Your task to perform on an android device: What's the price of the new iPhone on eBay? Image 0: 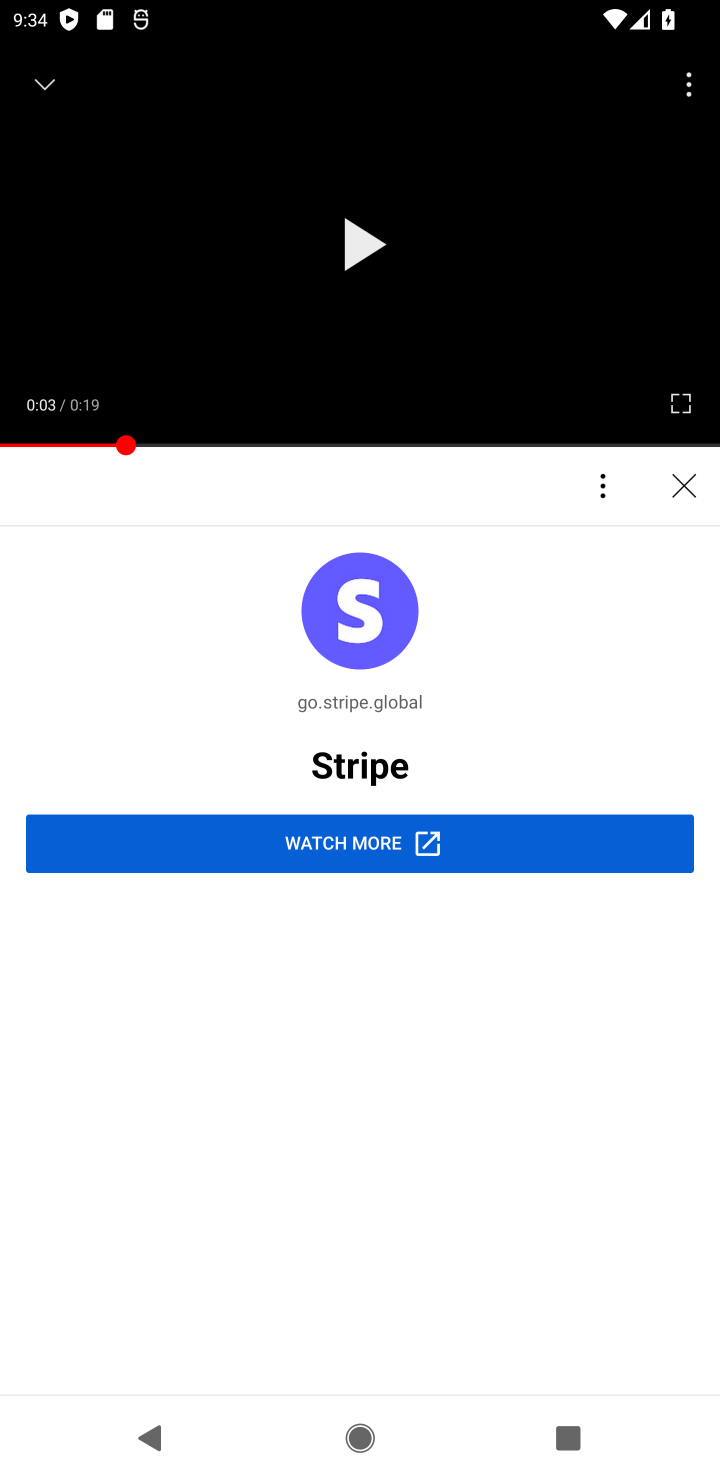
Step 0: press home button
Your task to perform on an android device: What's the price of the new iPhone on eBay? Image 1: 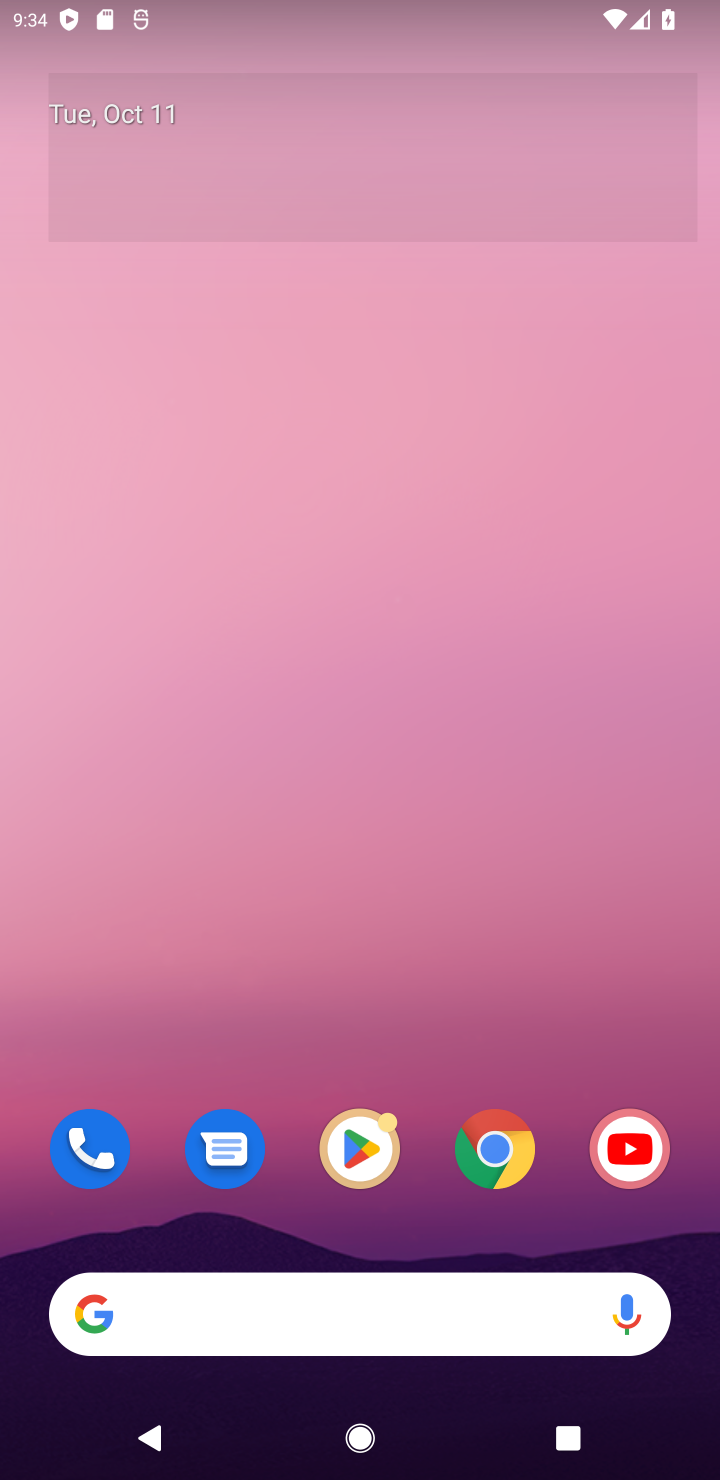
Step 1: drag from (353, 1108) to (351, 121)
Your task to perform on an android device: What's the price of the new iPhone on eBay? Image 2: 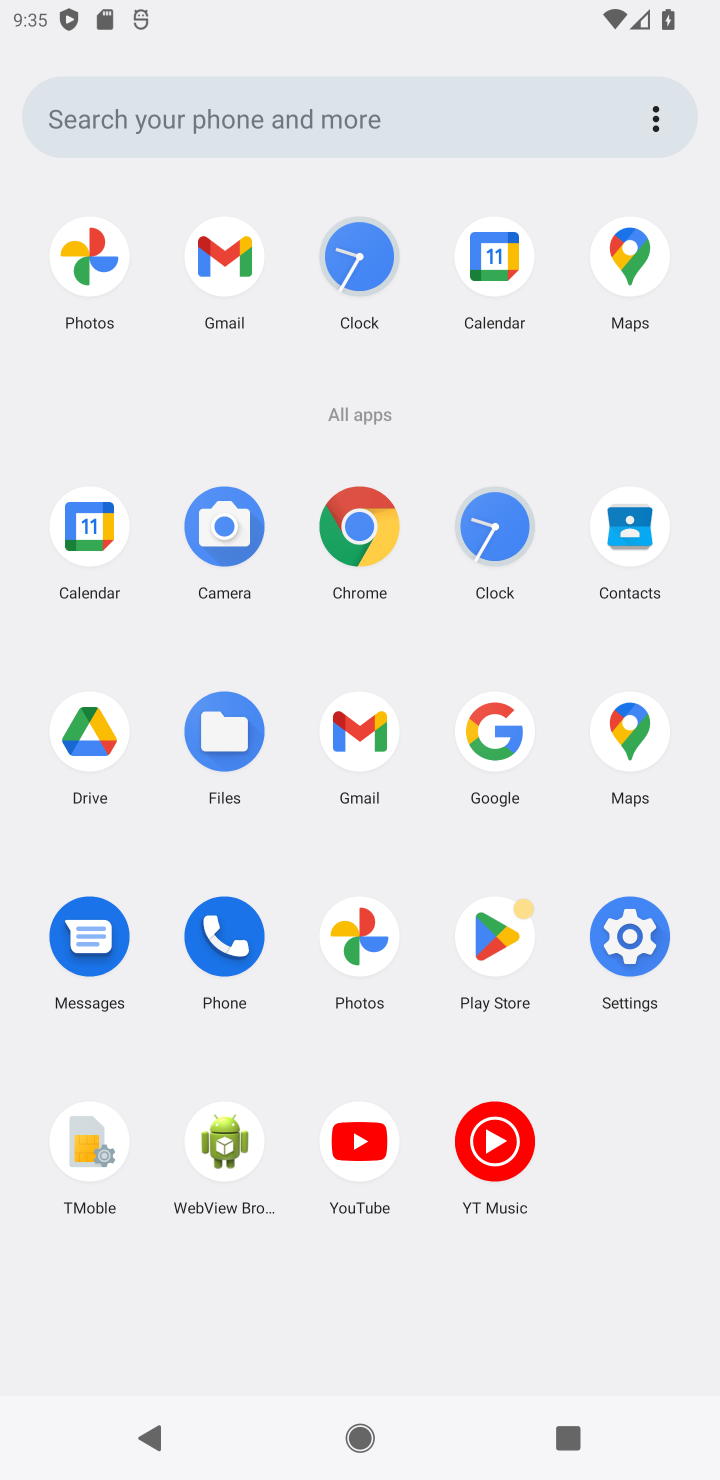
Step 2: click (389, 521)
Your task to perform on an android device: What's the price of the new iPhone on eBay? Image 3: 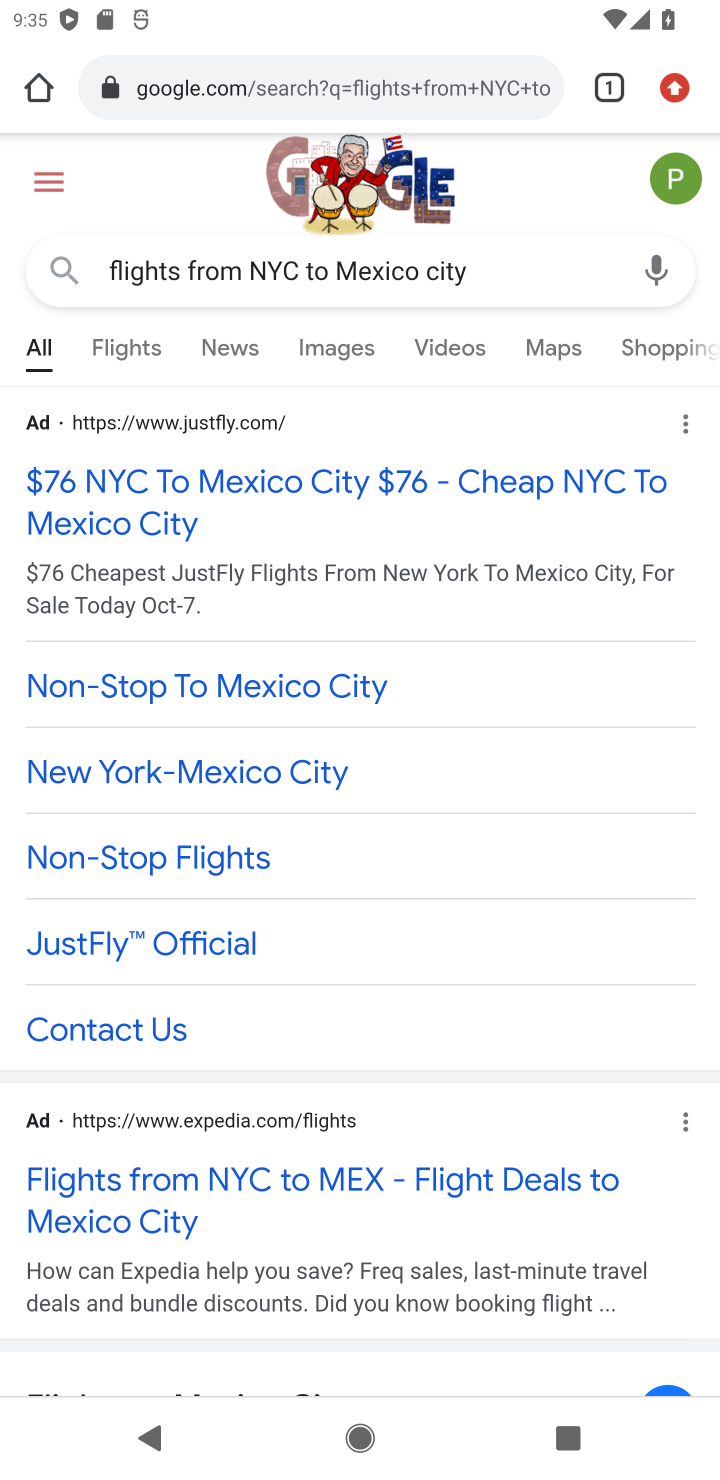
Step 3: click (200, 494)
Your task to perform on an android device: What's the price of the new iPhone on eBay? Image 4: 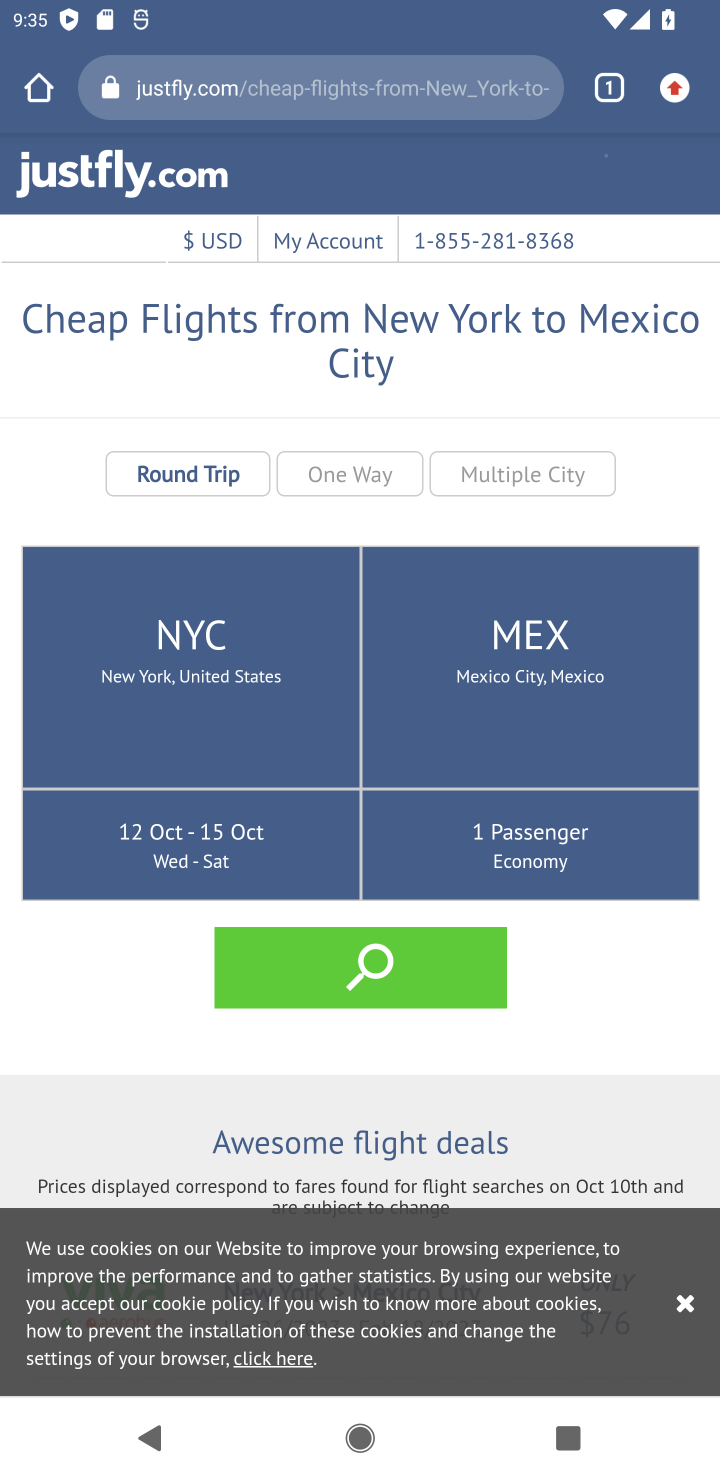
Step 4: press back button
Your task to perform on an android device: What's the price of the new iPhone on eBay? Image 5: 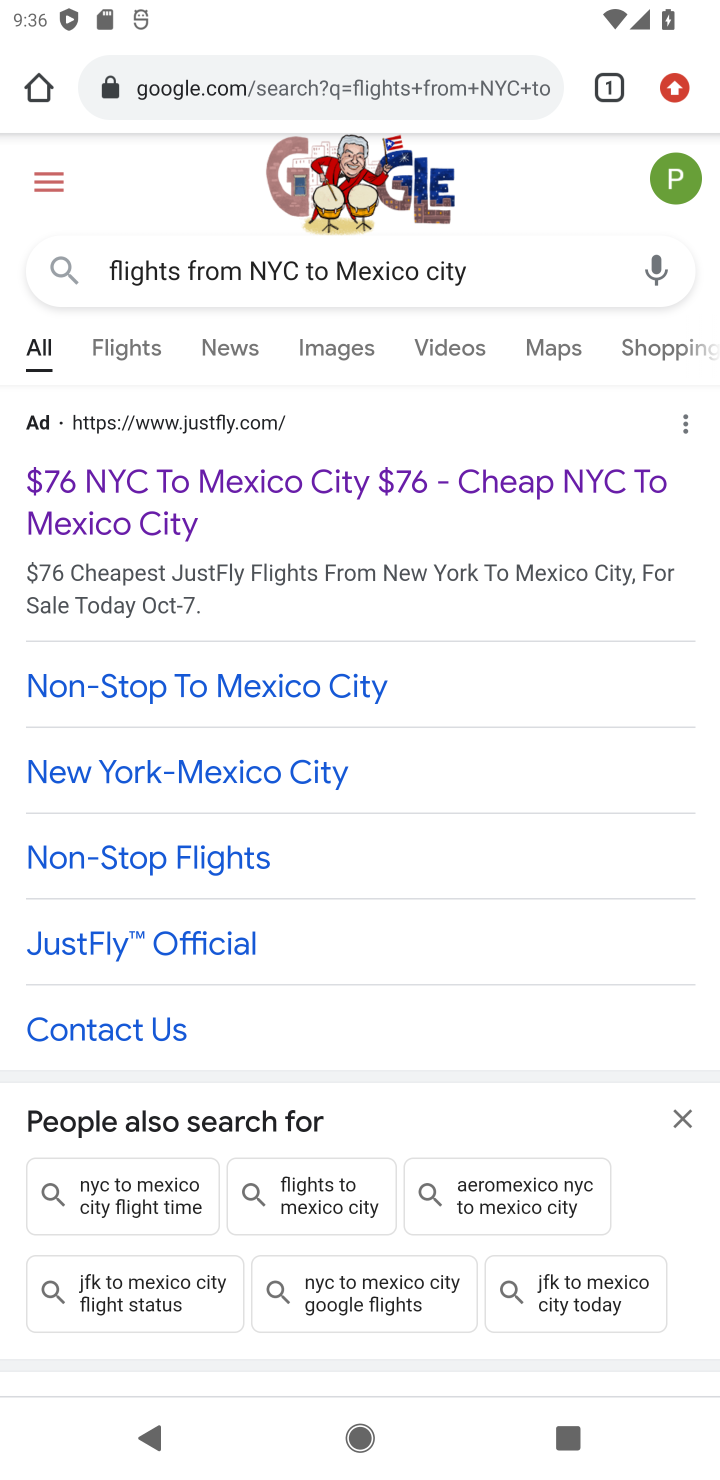
Step 5: click (319, 74)
Your task to perform on an android device: What's the price of the new iPhone on eBay? Image 6: 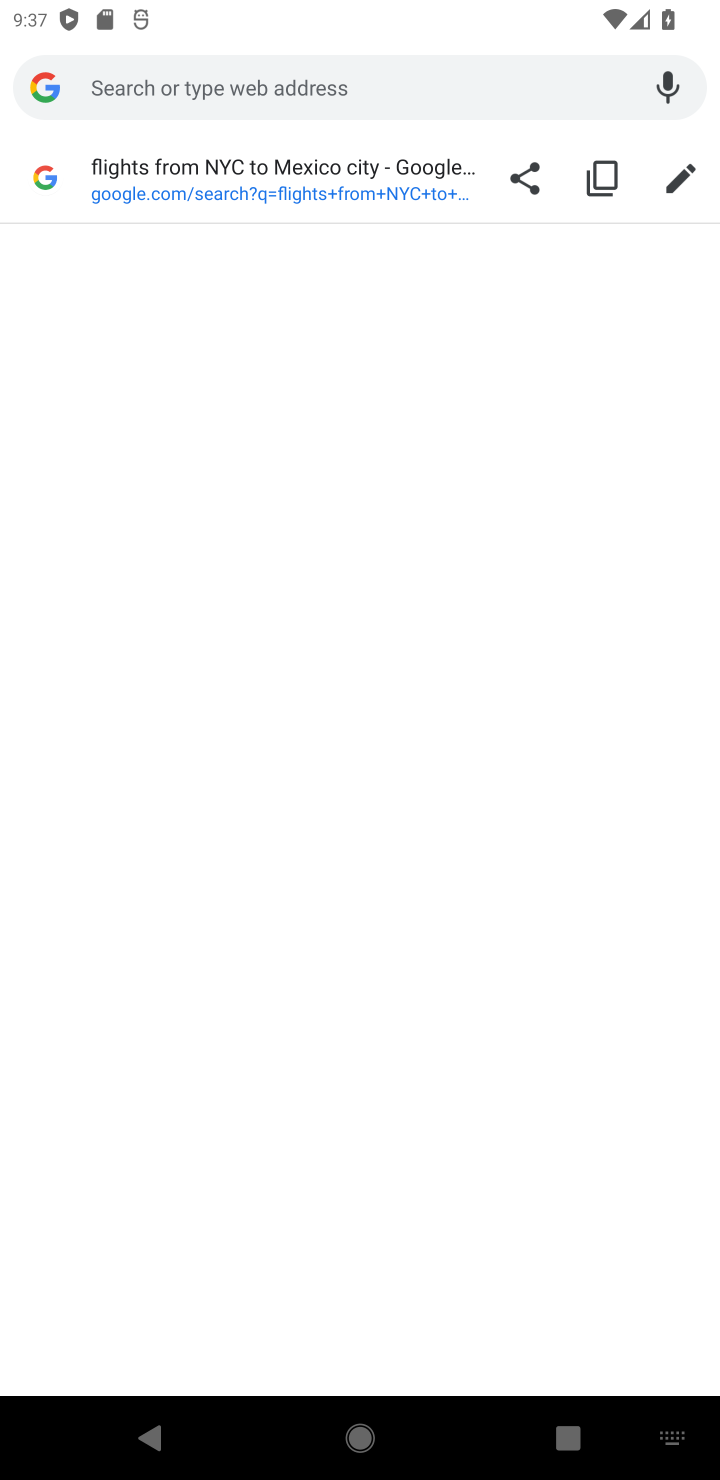
Step 6: type "What's the price of the new iPhone on eBay?"
Your task to perform on an android device: What's the price of the new iPhone on eBay? Image 7: 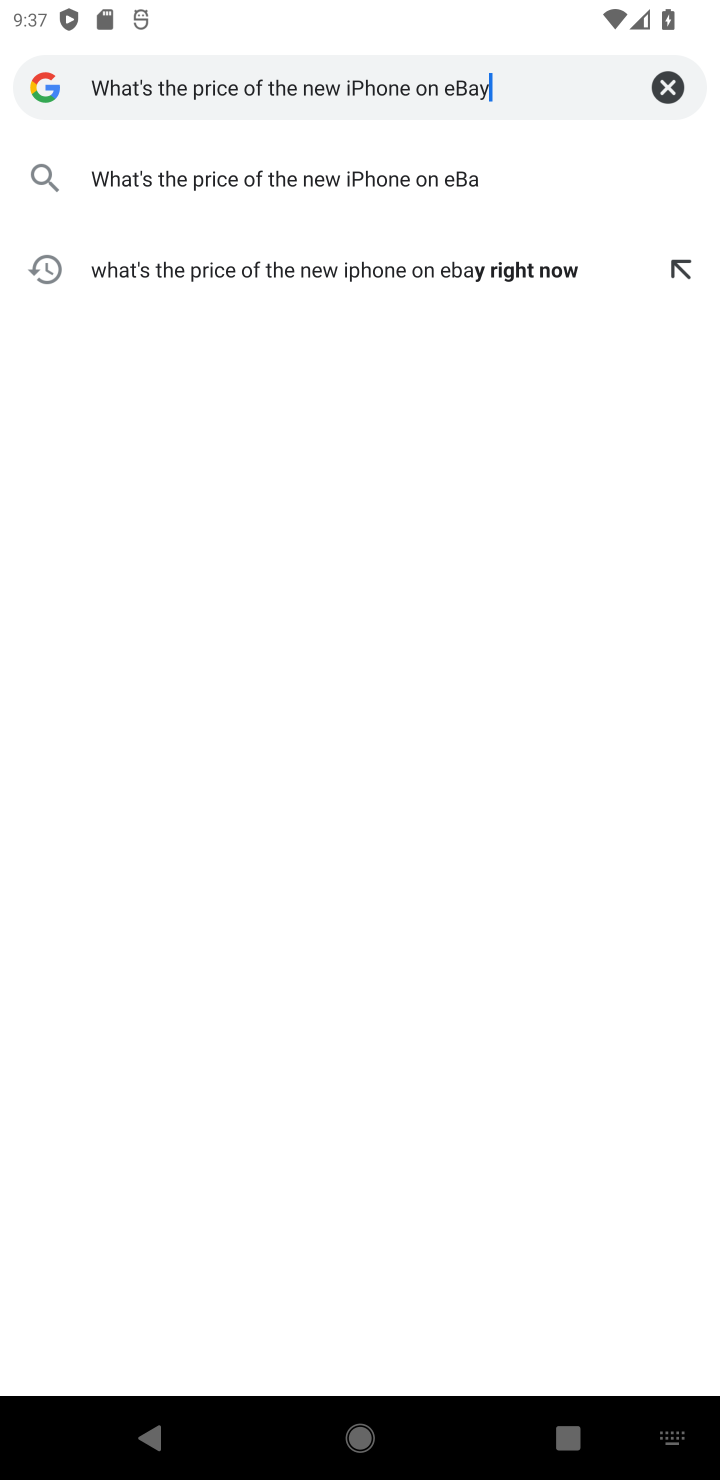
Step 7: press enter
Your task to perform on an android device: What's the price of the new iPhone on eBay? Image 8: 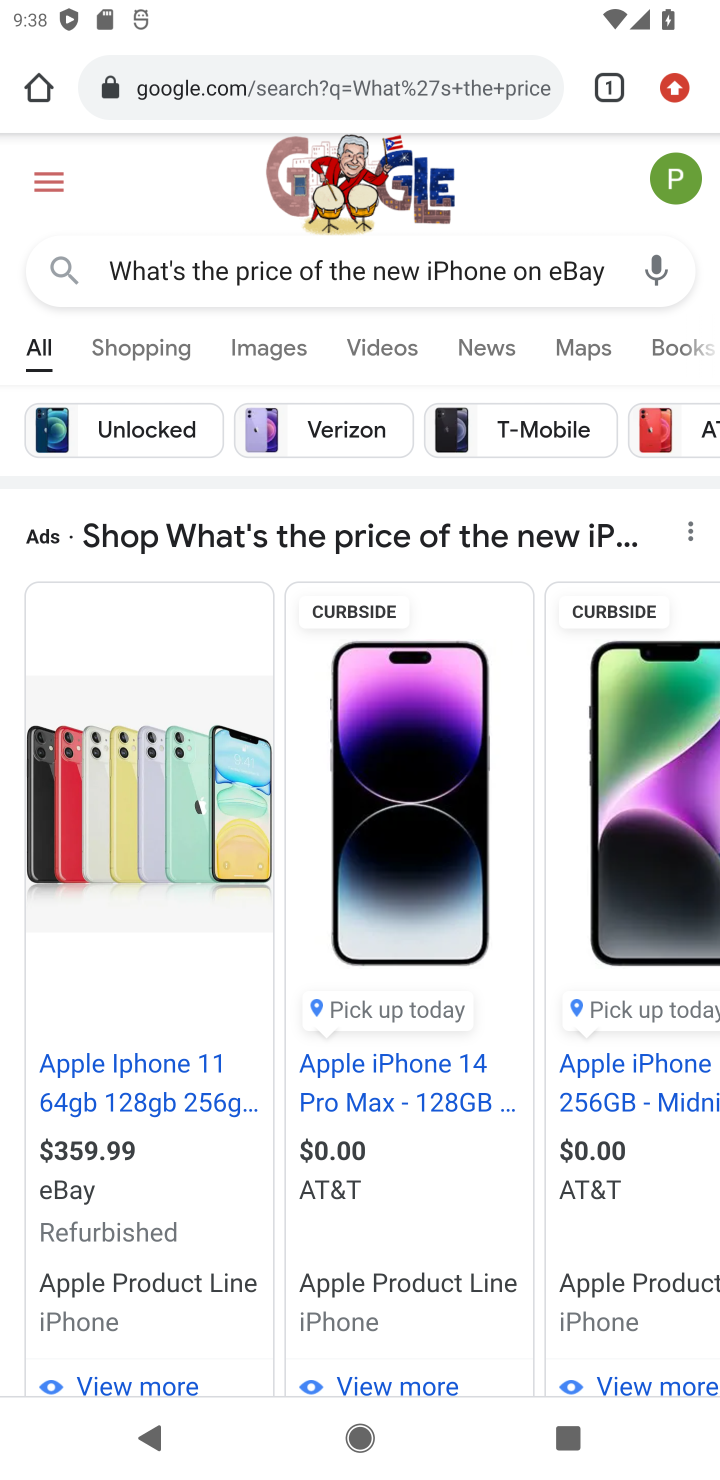
Step 8: task complete